Your task to perform on an android device: What's on my calendar tomorrow? Image 0: 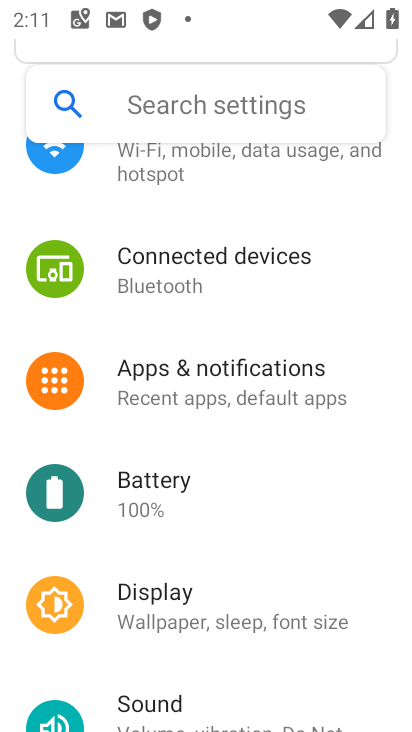
Step 0: press home button
Your task to perform on an android device: What's on my calendar tomorrow? Image 1: 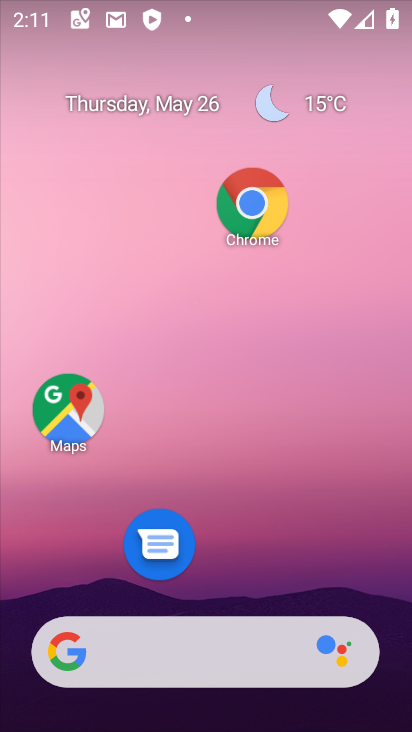
Step 1: drag from (249, 624) to (288, 171)
Your task to perform on an android device: What's on my calendar tomorrow? Image 2: 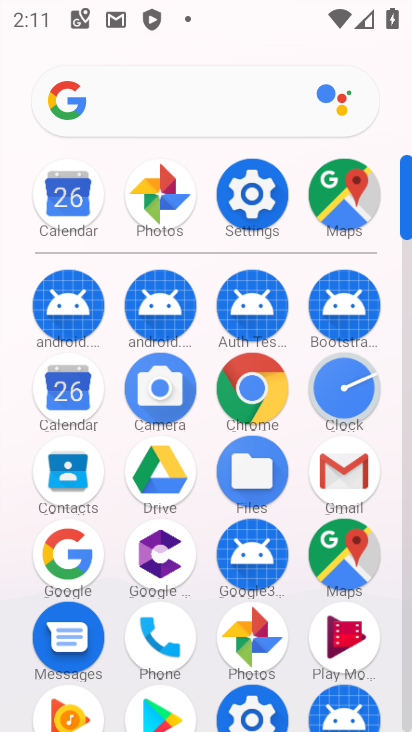
Step 2: click (57, 200)
Your task to perform on an android device: What's on my calendar tomorrow? Image 3: 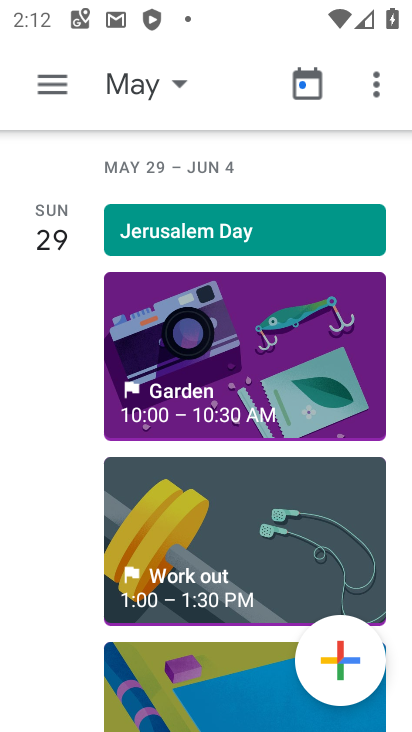
Step 3: click (114, 86)
Your task to perform on an android device: What's on my calendar tomorrow? Image 4: 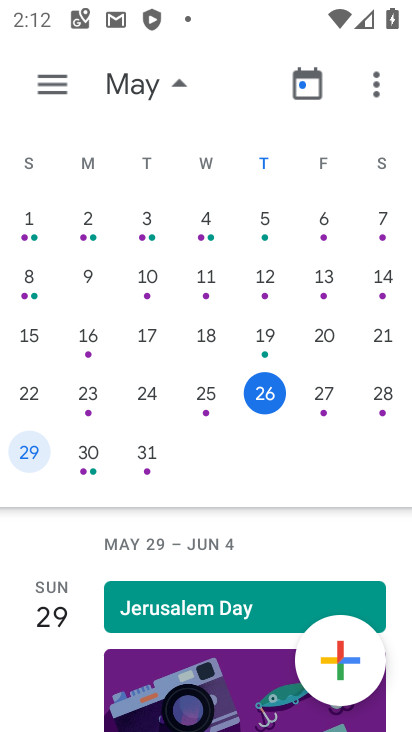
Step 4: click (322, 397)
Your task to perform on an android device: What's on my calendar tomorrow? Image 5: 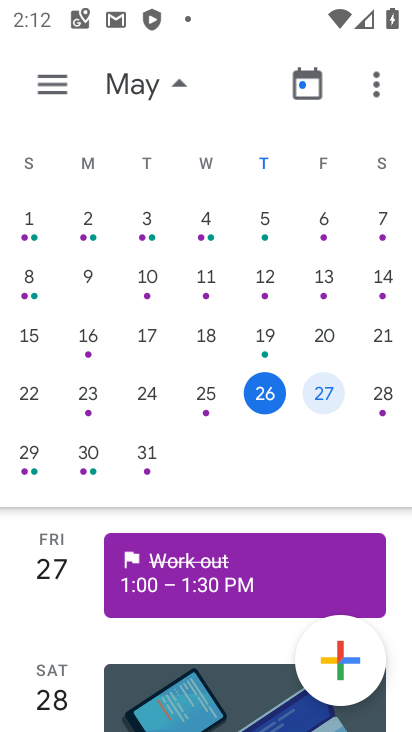
Step 5: task complete